Your task to perform on an android device: turn pop-ups on in chrome Image 0: 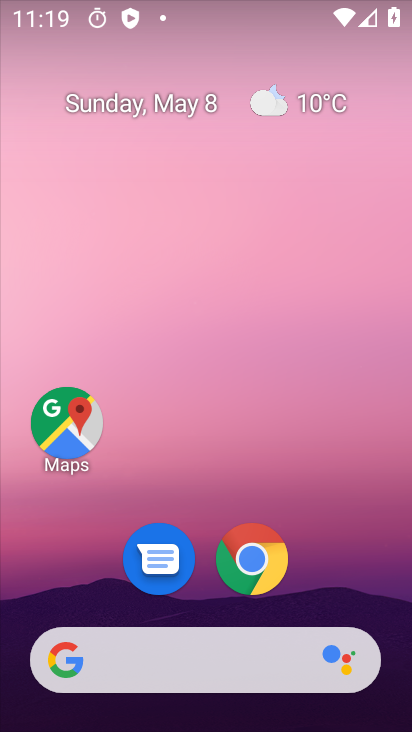
Step 0: click (256, 584)
Your task to perform on an android device: turn pop-ups on in chrome Image 1: 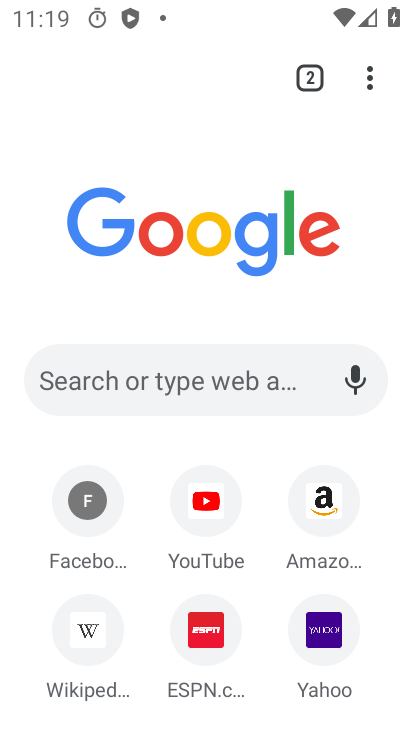
Step 1: click (376, 76)
Your task to perform on an android device: turn pop-ups on in chrome Image 2: 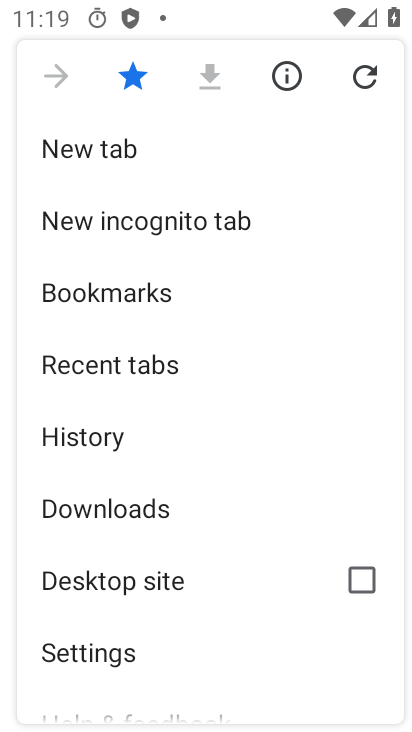
Step 2: drag from (114, 486) to (137, 260)
Your task to perform on an android device: turn pop-ups on in chrome Image 3: 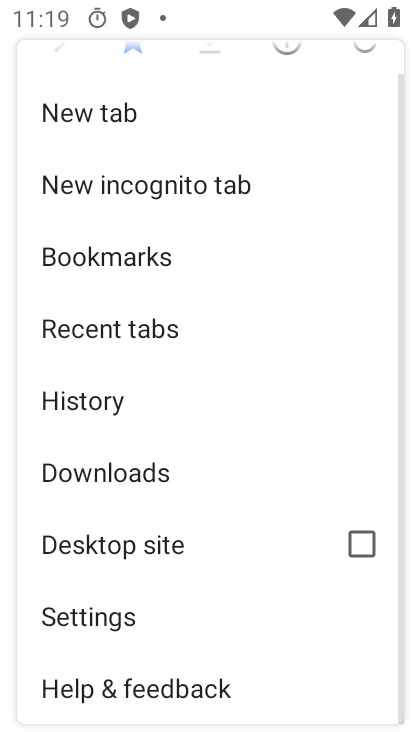
Step 3: click (63, 619)
Your task to perform on an android device: turn pop-ups on in chrome Image 4: 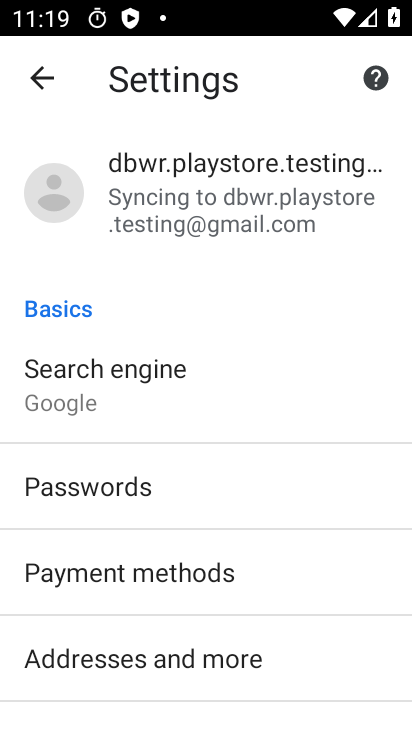
Step 4: drag from (246, 628) to (299, 304)
Your task to perform on an android device: turn pop-ups on in chrome Image 5: 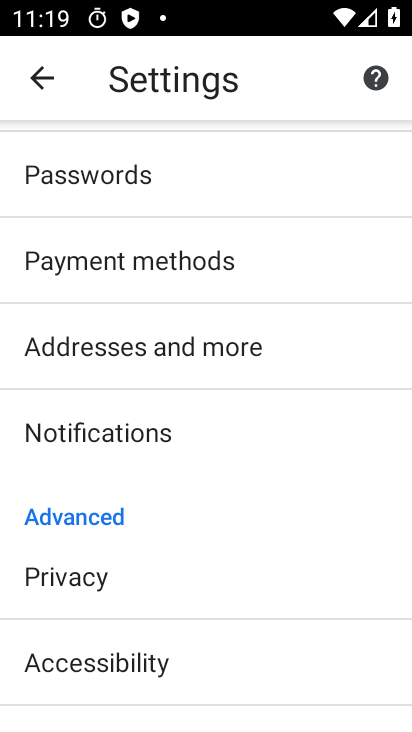
Step 5: drag from (181, 576) to (267, 177)
Your task to perform on an android device: turn pop-ups on in chrome Image 6: 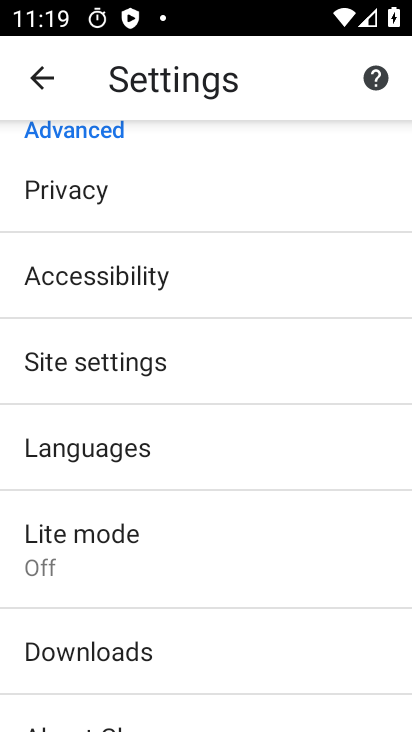
Step 6: click (101, 376)
Your task to perform on an android device: turn pop-ups on in chrome Image 7: 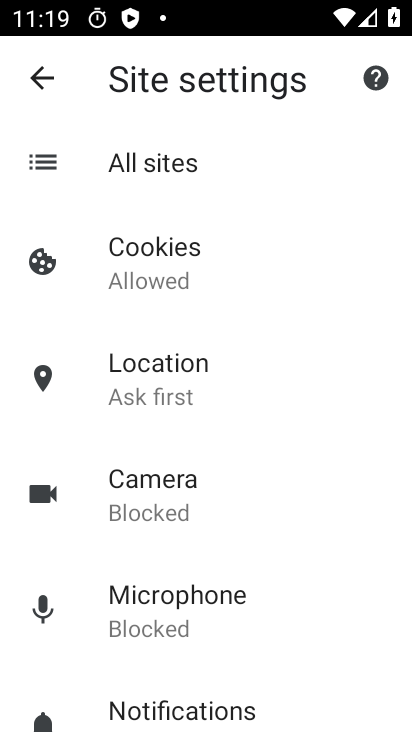
Step 7: drag from (207, 578) to (196, 153)
Your task to perform on an android device: turn pop-ups on in chrome Image 8: 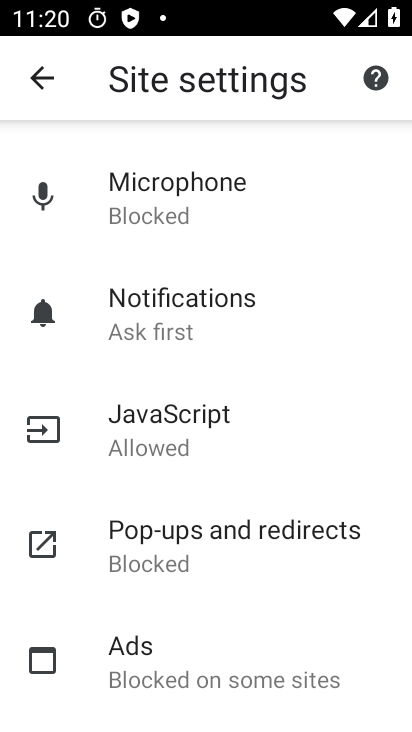
Step 8: click (126, 561)
Your task to perform on an android device: turn pop-ups on in chrome Image 9: 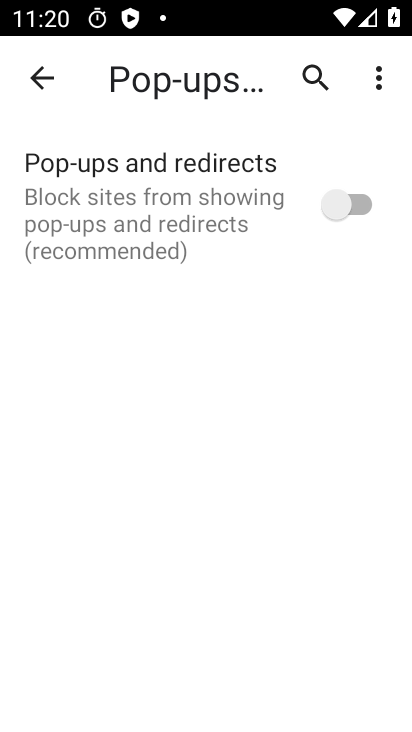
Step 9: click (349, 198)
Your task to perform on an android device: turn pop-ups on in chrome Image 10: 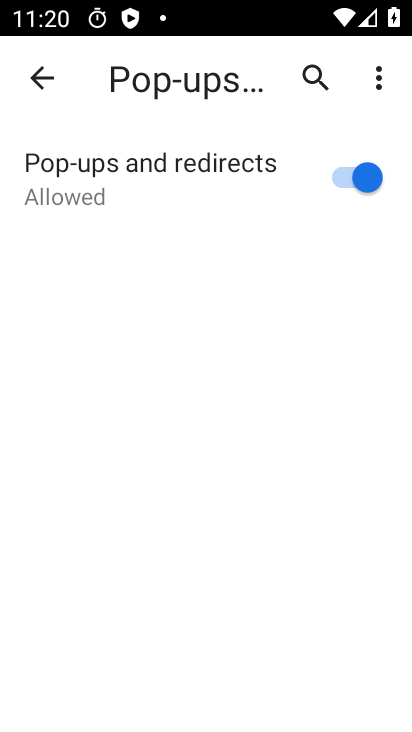
Step 10: task complete